Your task to perform on an android device: Open calendar and show me the fourth week of next month Image 0: 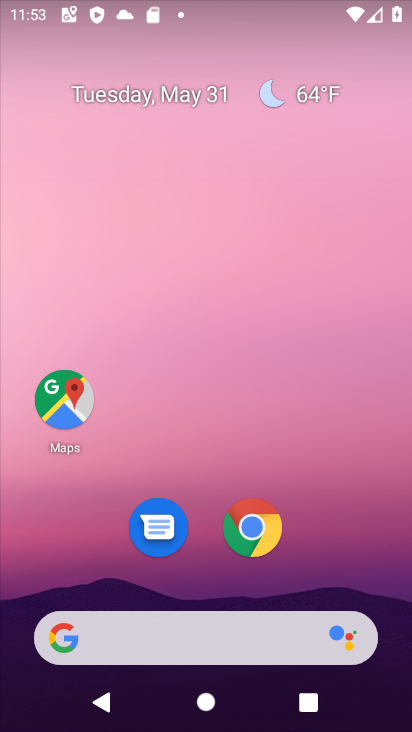
Step 0: drag from (232, 582) to (278, 111)
Your task to perform on an android device: Open calendar and show me the fourth week of next month Image 1: 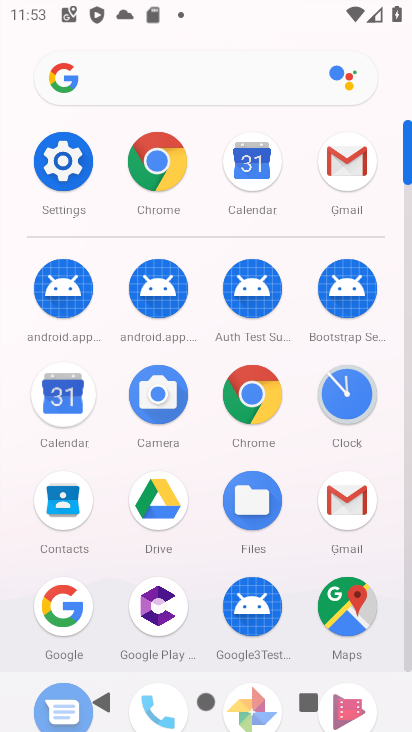
Step 1: click (73, 394)
Your task to perform on an android device: Open calendar and show me the fourth week of next month Image 2: 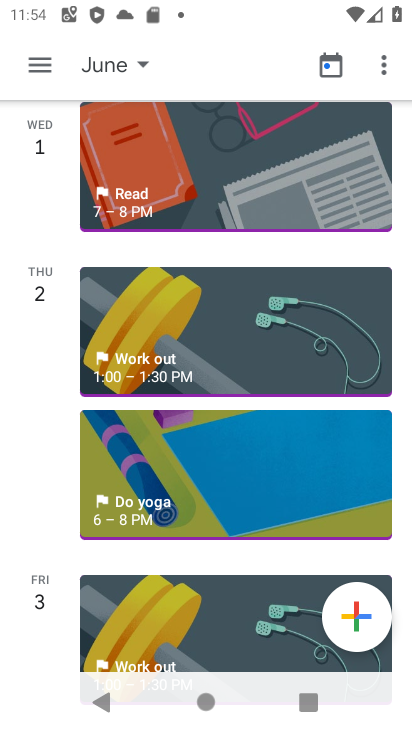
Step 2: press home button
Your task to perform on an android device: Open calendar and show me the fourth week of next month Image 3: 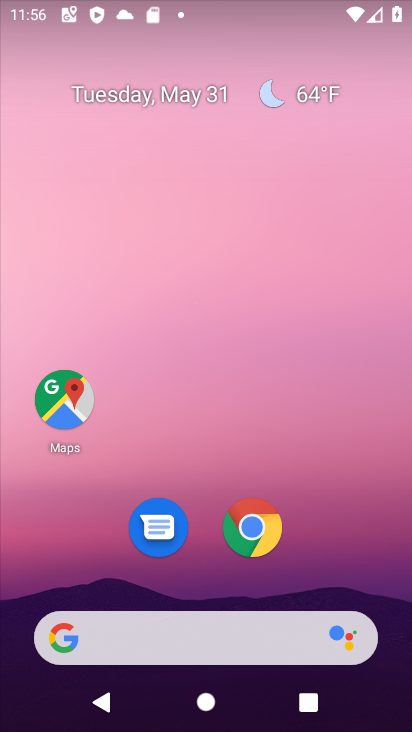
Step 3: drag from (150, 598) to (184, 47)
Your task to perform on an android device: Open calendar and show me the fourth week of next month Image 4: 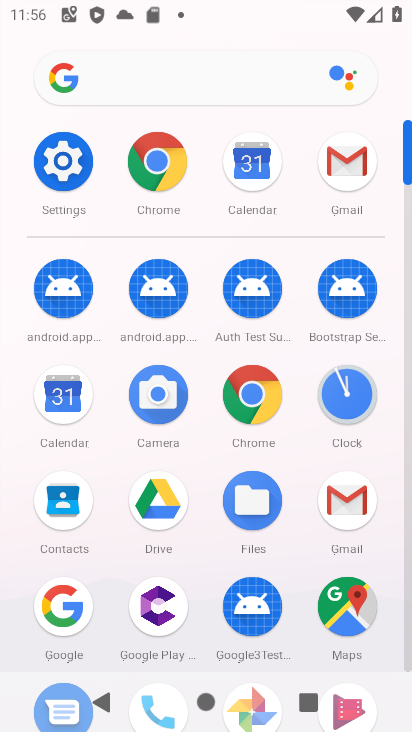
Step 4: click (64, 396)
Your task to perform on an android device: Open calendar and show me the fourth week of next month Image 5: 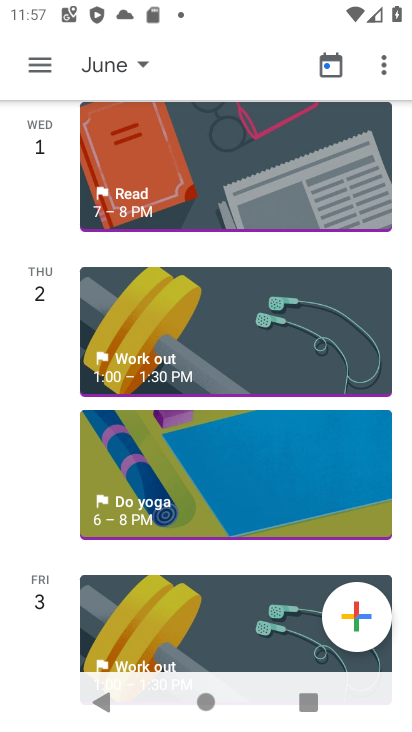
Step 5: click (93, 82)
Your task to perform on an android device: Open calendar and show me the fourth week of next month Image 6: 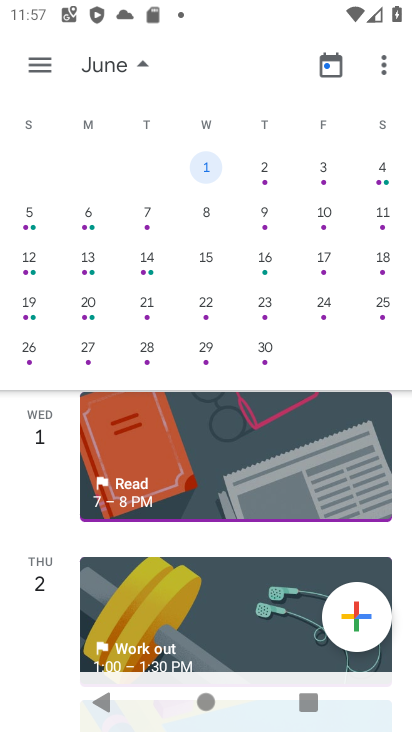
Step 6: drag from (391, 264) to (12, 282)
Your task to perform on an android device: Open calendar and show me the fourth week of next month Image 7: 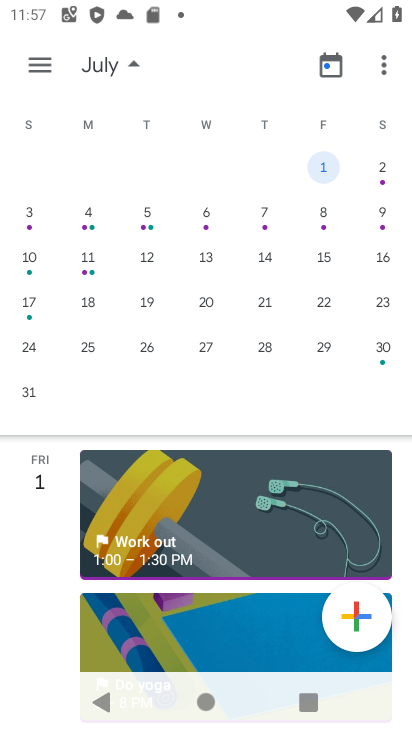
Step 7: click (32, 307)
Your task to perform on an android device: Open calendar and show me the fourth week of next month Image 8: 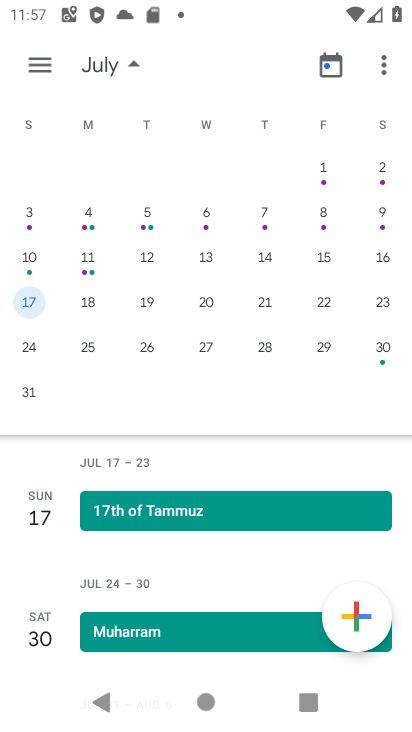
Step 8: task complete